Your task to perform on an android device: View the shopping cart on target.com. Add logitech g502 to the cart on target.com, then select checkout. Image 0: 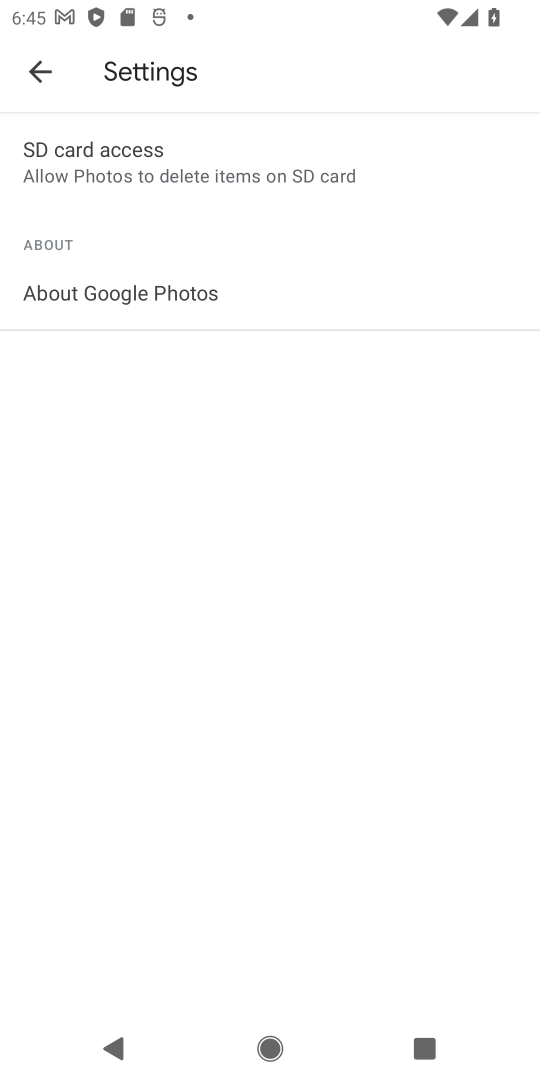
Step 0: press home button
Your task to perform on an android device: View the shopping cart on target.com. Add logitech g502 to the cart on target.com, then select checkout. Image 1: 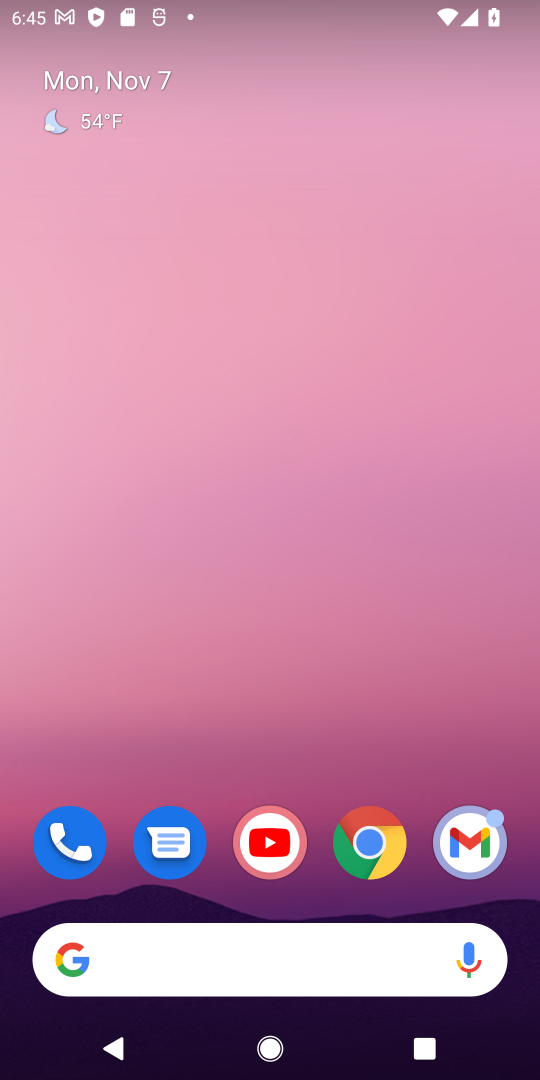
Step 1: click (371, 842)
Your task to perform on an android device: View the shopping cart on target.com. Add logitech g502 to the cart on target.com, then select checkout. Image 2: 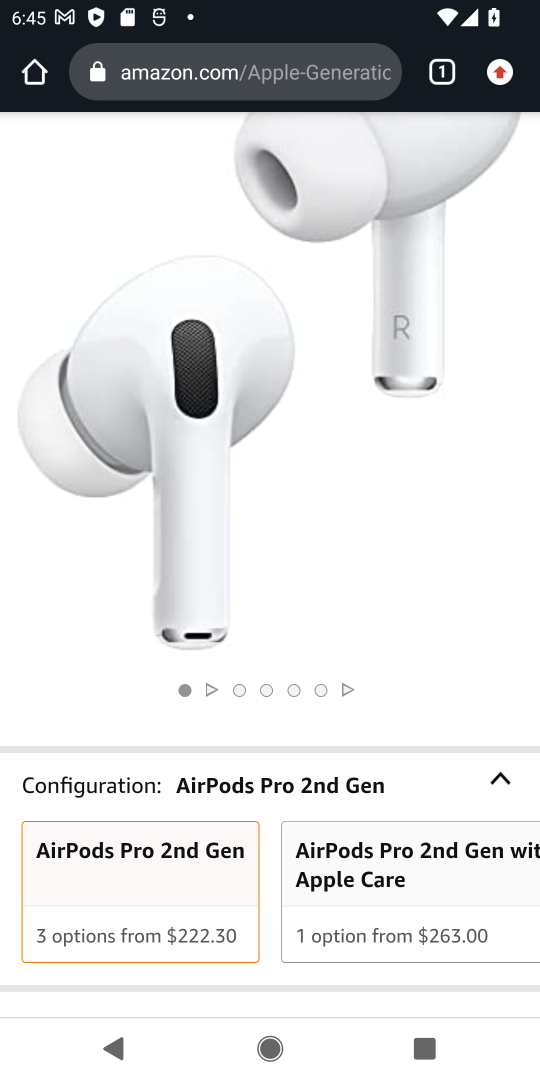
Step 2: click (246, 73)
Your task to perform on an android device: View the shopping cart on target.com. Add logitech g502 to the cart on target.com, then select checkout. Image 3: 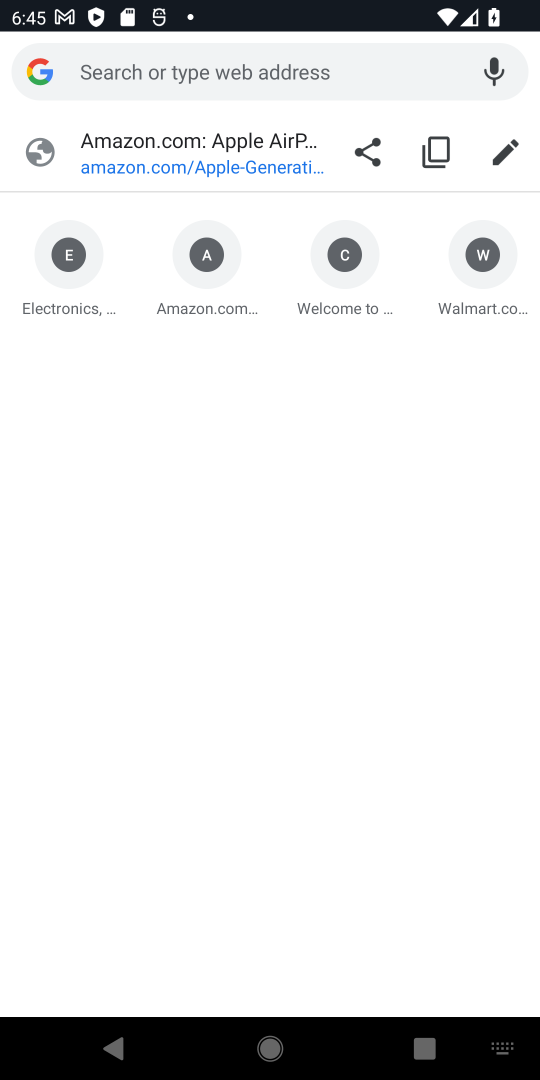
Step 3: type " target.com"
Your task to perform on an android device: View the shopping cart on target.com. Add logitech g502 to the cart on target.com, then select checkout. Image 4: 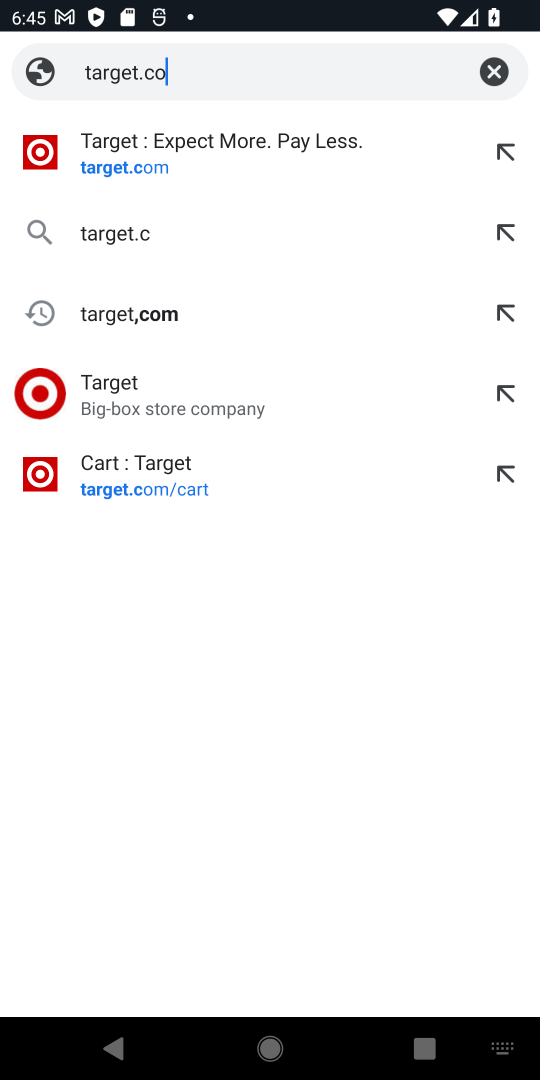
Step 4: press enter
Your task to perform on an android device: View the shopping cart on target.com. Add logitech g502 to the cart on target.com, then select checkout. Image 5: 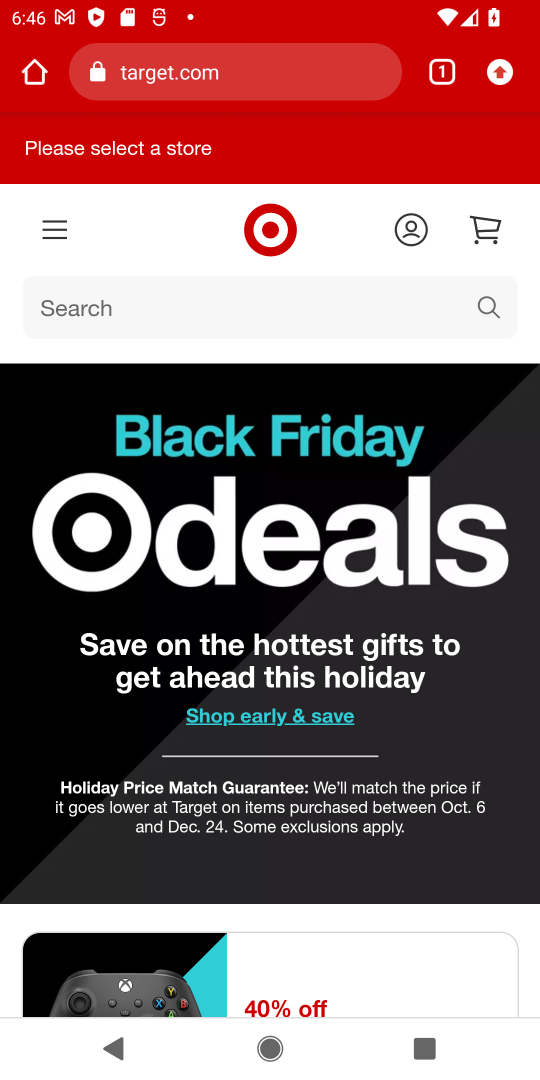
Step 5: click (109, 312)
Your task to perform on an android device: View the shopping cart on target.com. Add logitech g502 to the cart on target.com, then select checkout. Image 6: 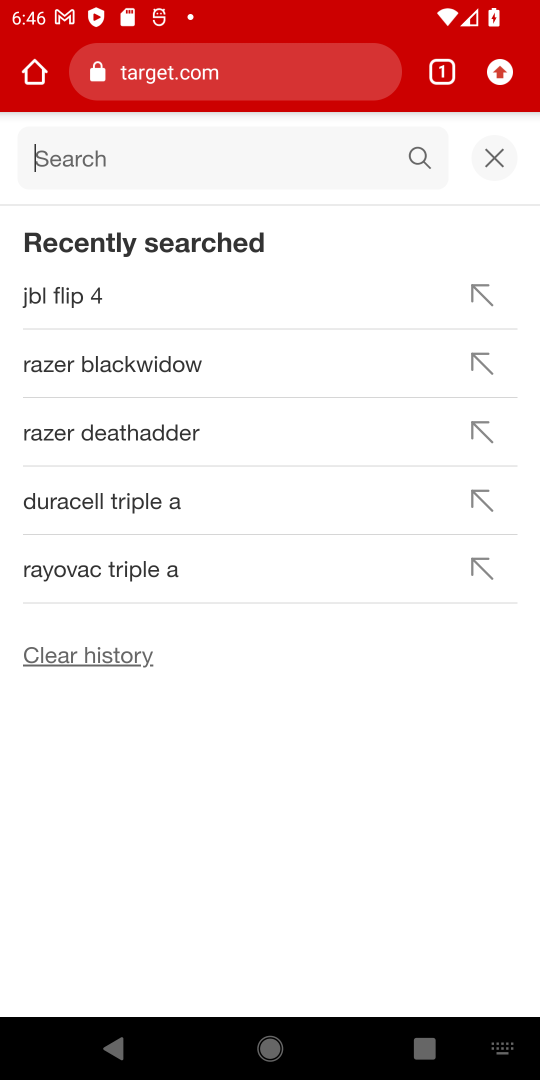
Step 6: press enter
Your task to perform on an android device: View the shopping cart on target.com. Add logitech g502 to the cart on target.com, then select checkout. Image 7: 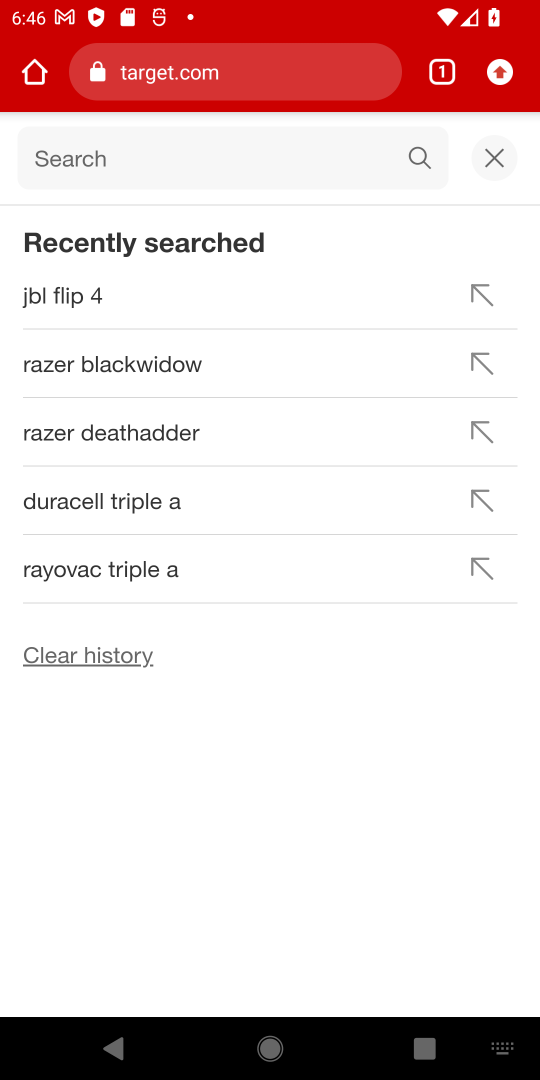
Step 7: type "logitech g502 "
Your task to perform on an android device: View the shopping cart on target.com. Add logitech g502 to the cart on target.com, then select checkout. Image 8: 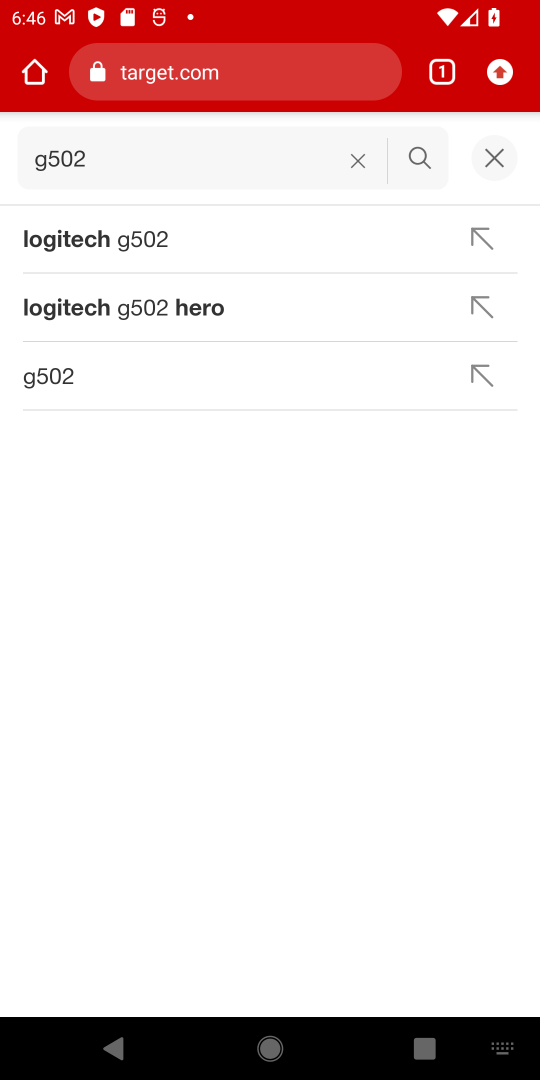
Step 8: click (118, 233)
Your task to perform on an android device: View the shopping cart on target.com. Add logitech g502 to the cart on target.com, then select checkout. Image 9: 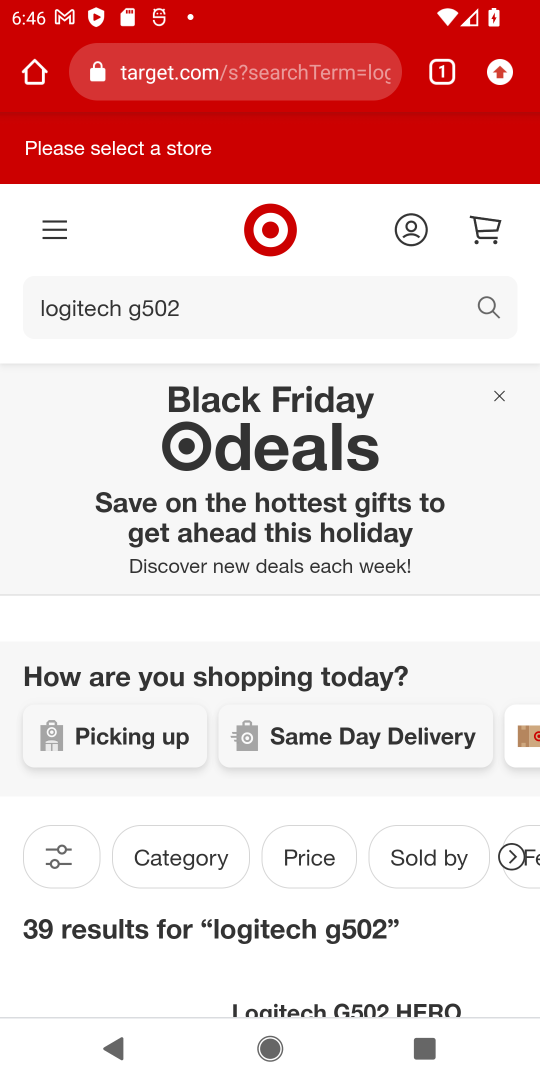
Step 9: drag from (325, 797) to (224, 130)
Your task to perform on an android device: View the shopping cart on target.com. Add logitech g502 to the cart on target.com, then select checkout. Image 10: 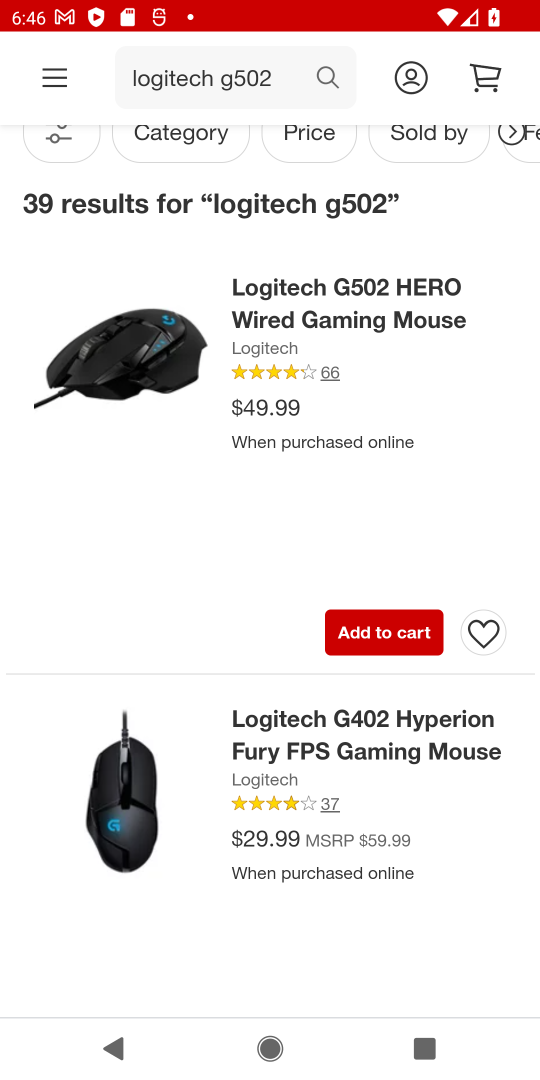
Step 10: click (410, 629)
Your task to perform on an android device: View the shopping cart on target.com. Add logitech g502 to the cart on target.com, then select checkout. Image 11: 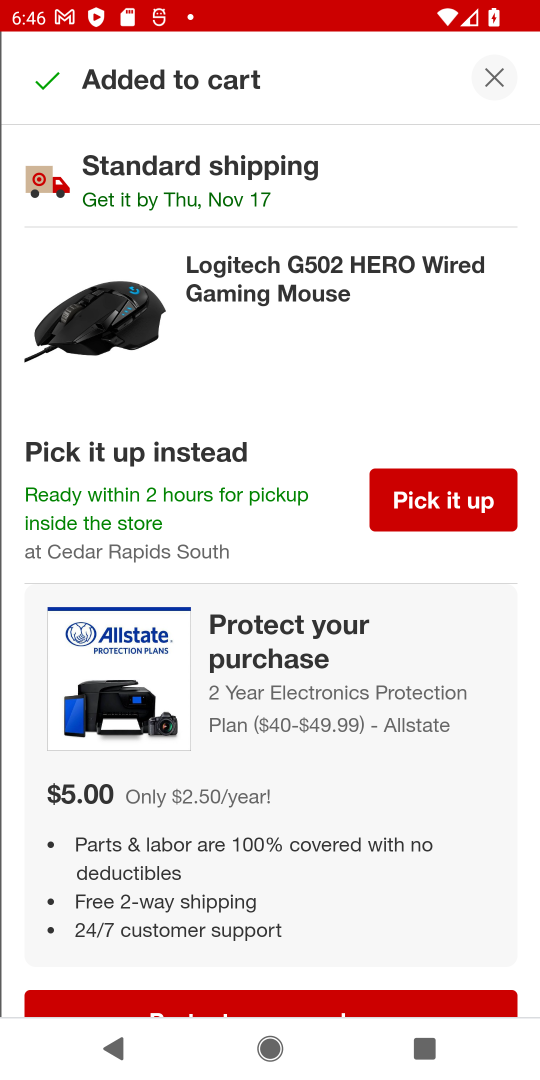
Step 11: drag from (299, 781) to (359, 235)
Your task to perform on an android device: View the shopping cart on target.com. Add logitech g502 to the cart on target.com, then select checkout. Image 12: 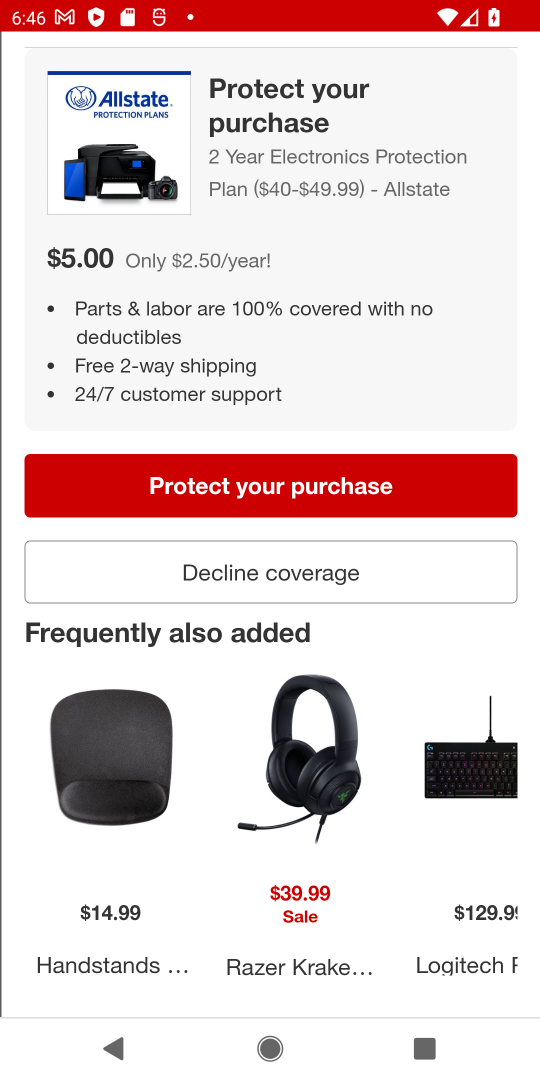
Step 12: click (316, 571)
Your task to perform on an android device: View the shopping cart on target.com. Add logitech g502 to the cart on target.com, then select checkout. Image 13: 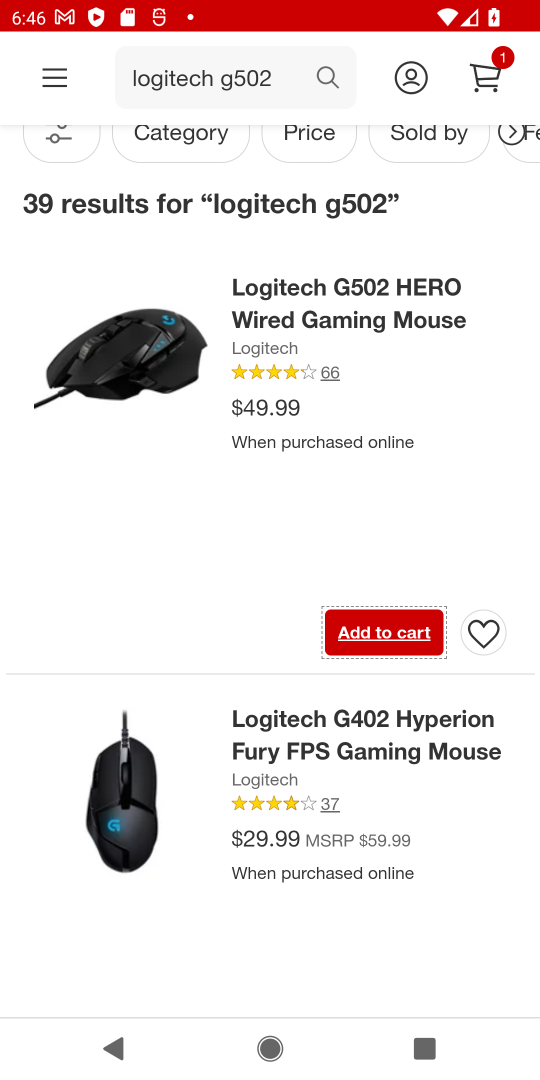
Step 13: click (489, 74)
Your task to perform on an android device: View the shopping cart on target.com. Add logitech g502 to the cart on target.com, then select checkout. Image 14: 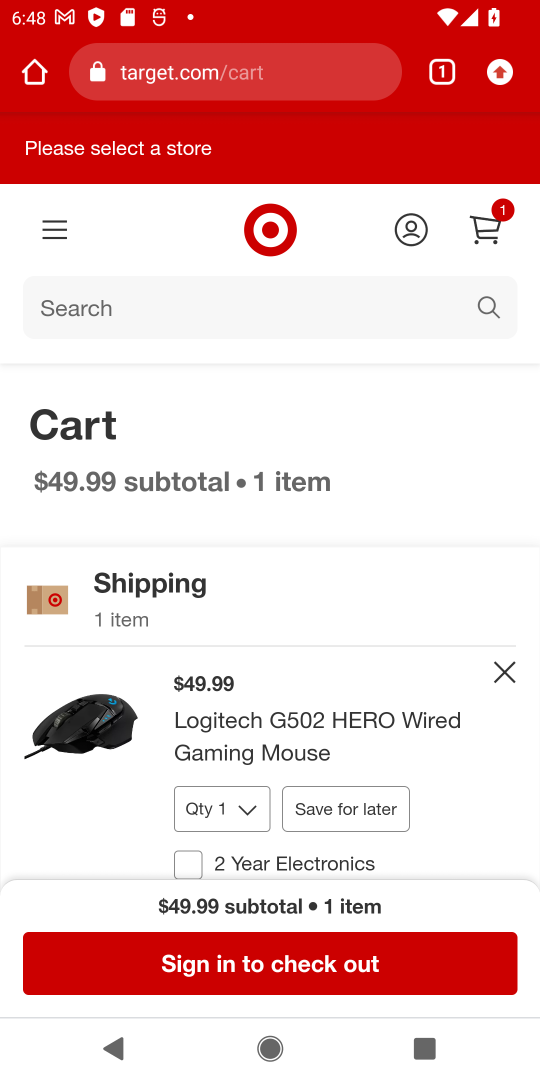
Step 14: click (291, 952)
Your task to perform on an android device: View the shopping cart on target.com. Add logitech g502 to the cart on target.com, then select checkout. Image 15: 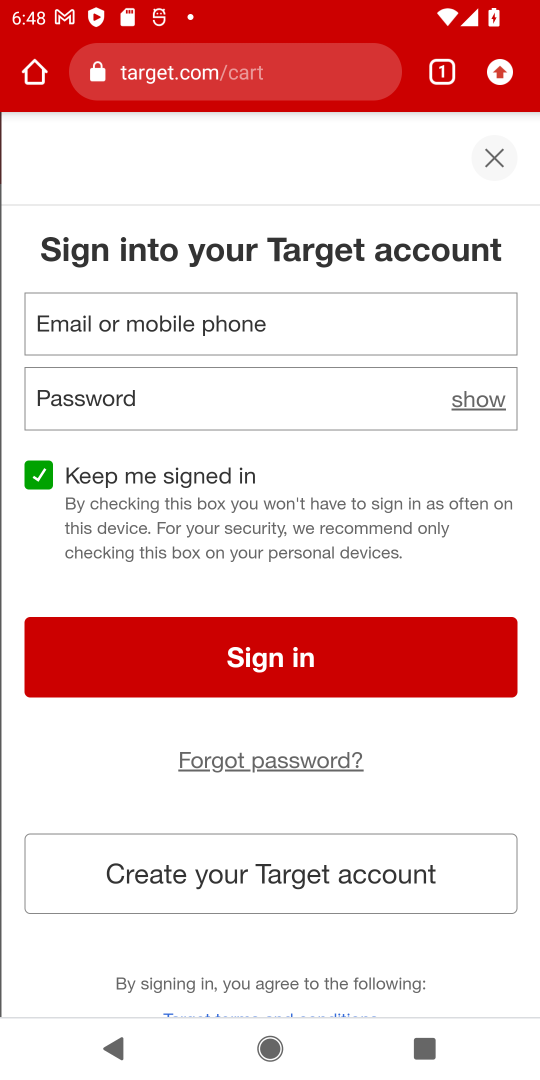
Step 15: task complete